Your task to perform on an android device: open wifi settings Image 0: 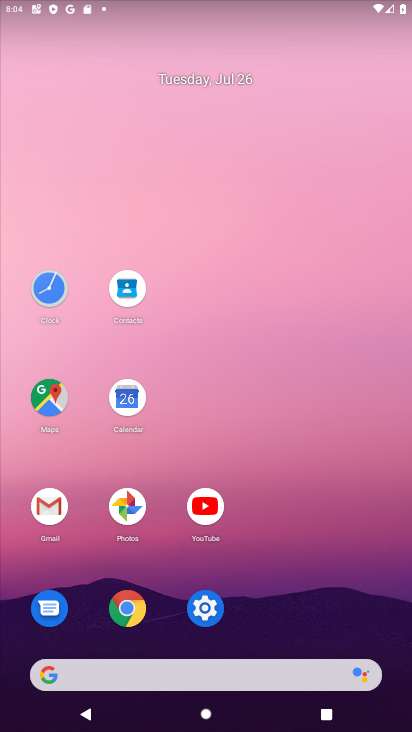
Step 0: click (208, 609)
Your task to perform on an android device: open wifi settings Image 1: 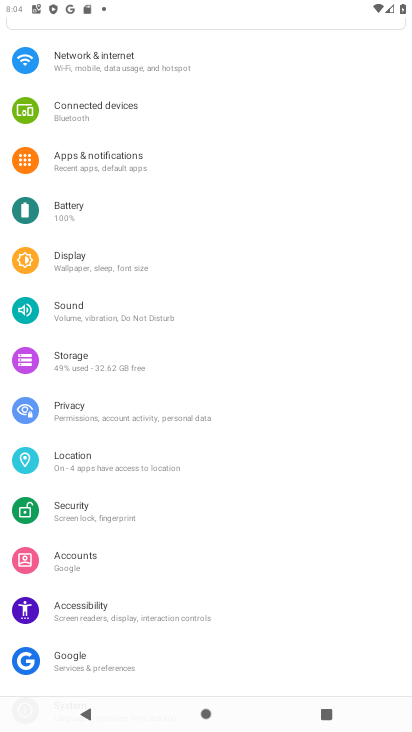
Step 1: click (107, 57)
Your task to perform on an android device: open wifi settings Image 2: 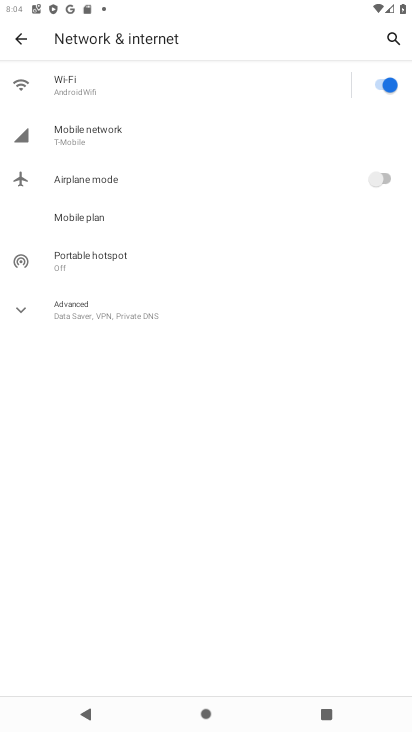
Step 2: click (95, 71)
Your task to perform on an android device: open wifi settings Image 3: 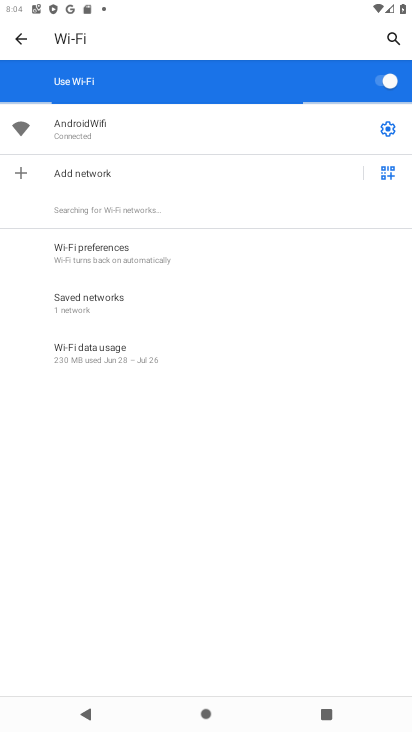
Step 3: task complete